Your task to perform on an android device: Show me productivity apps on the Play Store Image 0: 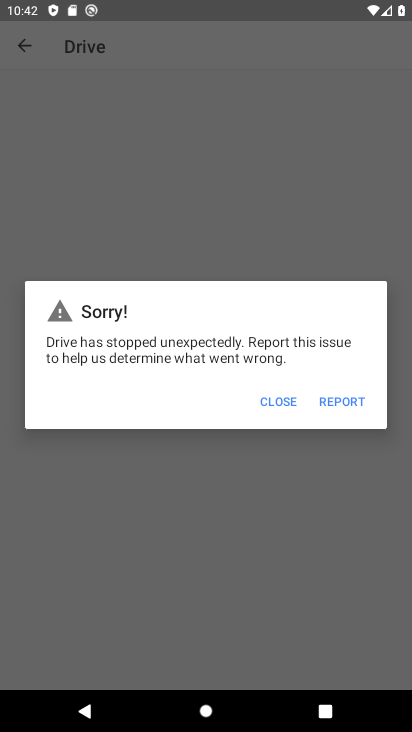
Step 0: press home button
Your task to perform on an android device: Show me productivity apps on the Play Store Image 1: 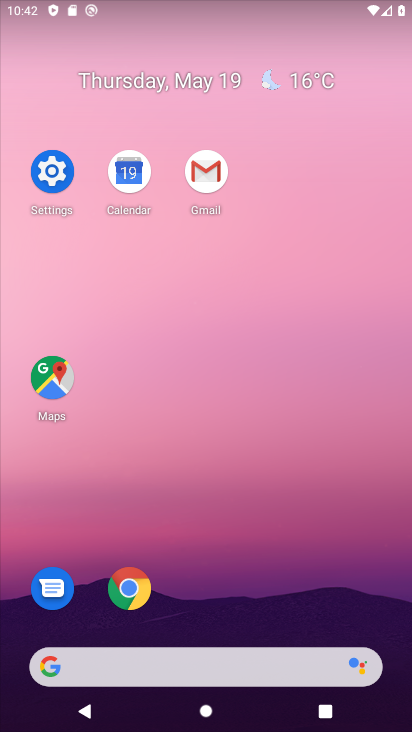
Step 1: drag from (209, 611) to (255, 211)
Your task to perform on an android device: Show me productivity apps on the Play Store Image 2: 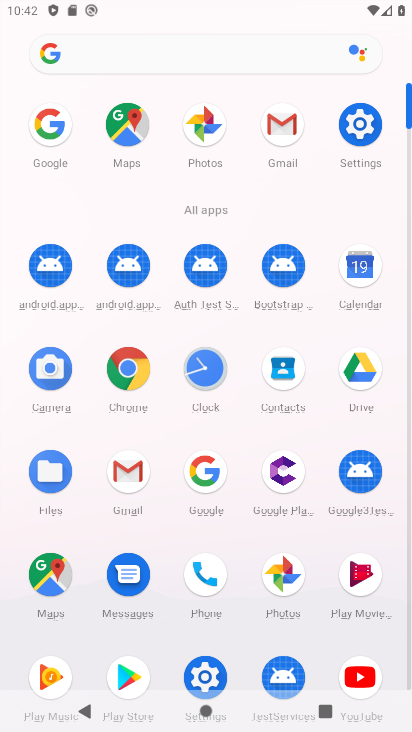
Step 2: click (139, 663)
Your task to perform on an android device: Show me productivity apps on the Play Store Image 3: 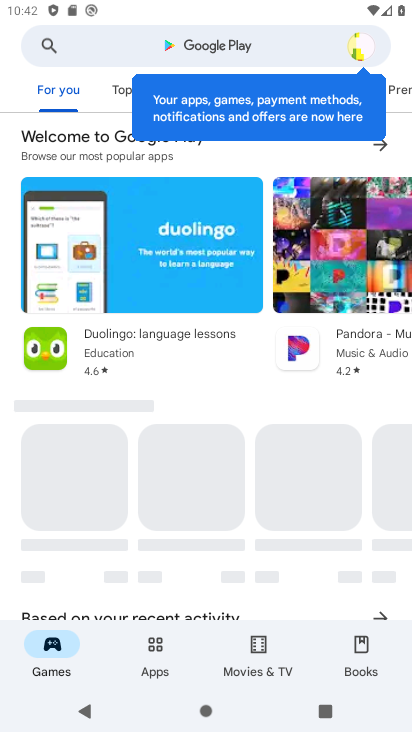
Step 3: click (162, 654)
Your task to perform on an android device: Show me productivity apps on the Play Store Image 4: 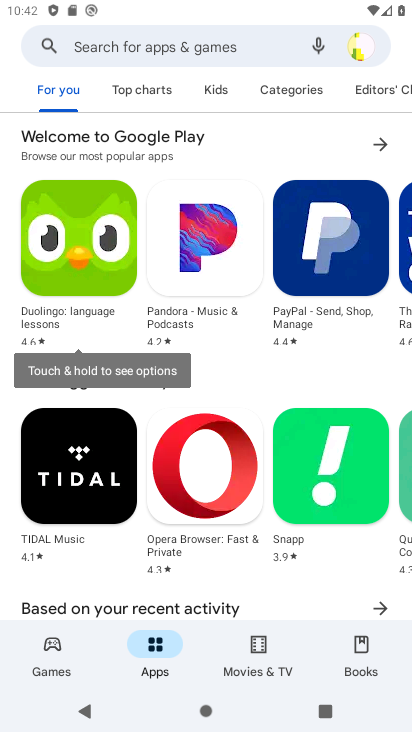
Step 4: click (278, 95)
Your task to perform on an android device: Show me productivity apps on the Play Store Image 5: 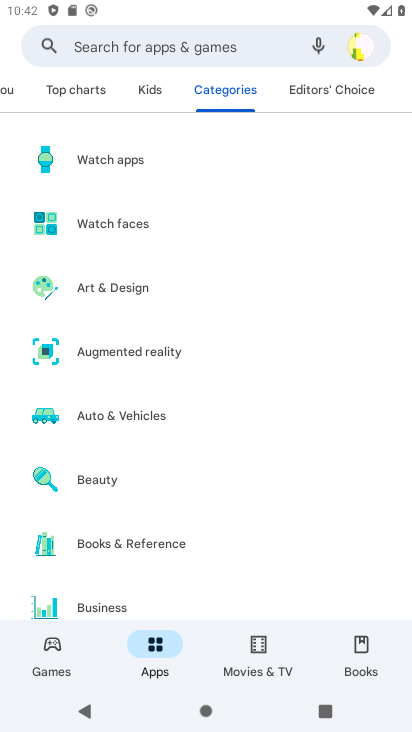
Step 5: drag from (209, 515) to (248, 58)
Your task to perform on an android device: Show me productivity apps on the Play Store Image 6: 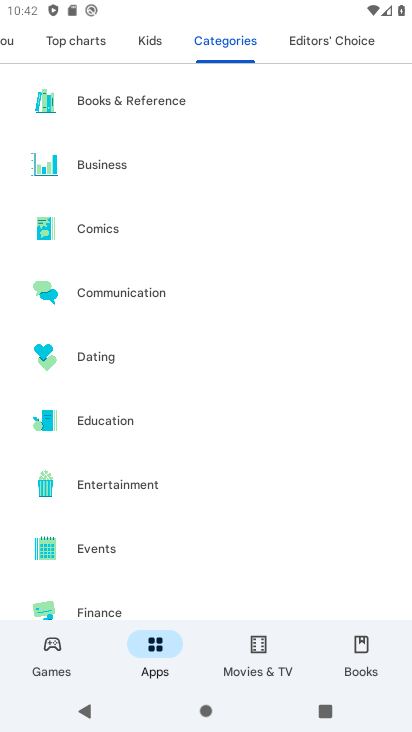
Step 6: drag from (191, 542) to (210, 151)
Your task to perform on an android device: Show me productivity apps on the Play Store Image 7: 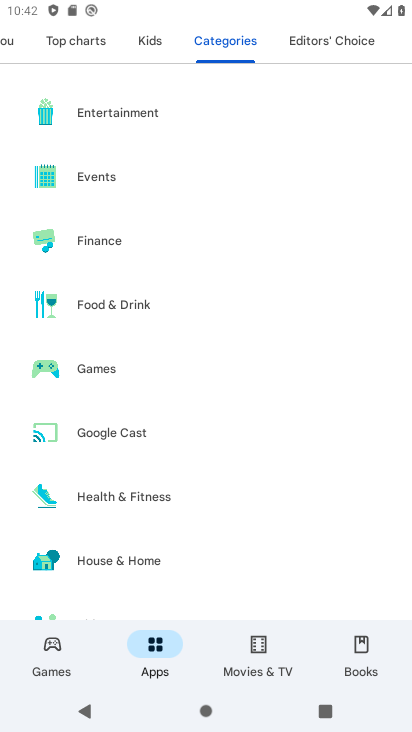
Step 7: drag from (169, 531) to (187, 188)
Your task to perform on an android device: Show me productivity apps on the Play Store Image 8: 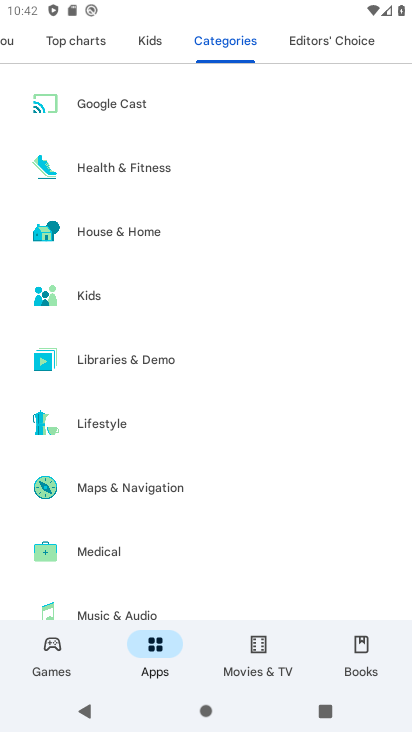
Step 8: drag from (185, 524) to (244, 154)
Your task to perform on an android device: Show me productivity apps on the Play Store Image 9: 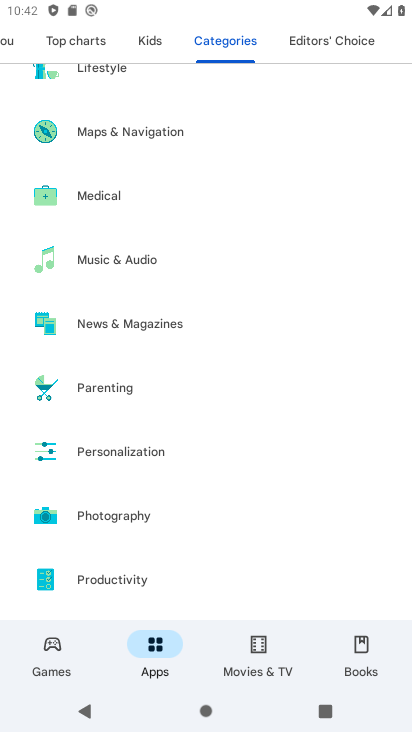
Step 9: click (121, 577)
Your task to perform on an android device: Show me productivity apps on the Play Store Image 10: 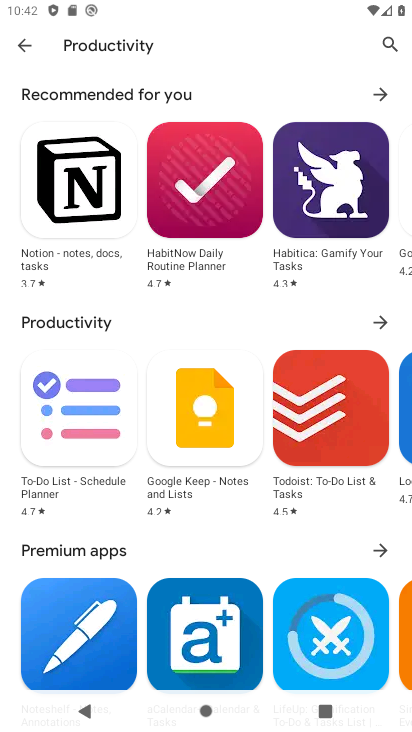
Step 10: task complete